Your task to perform on an android device: When is my next meeting? Image 0: 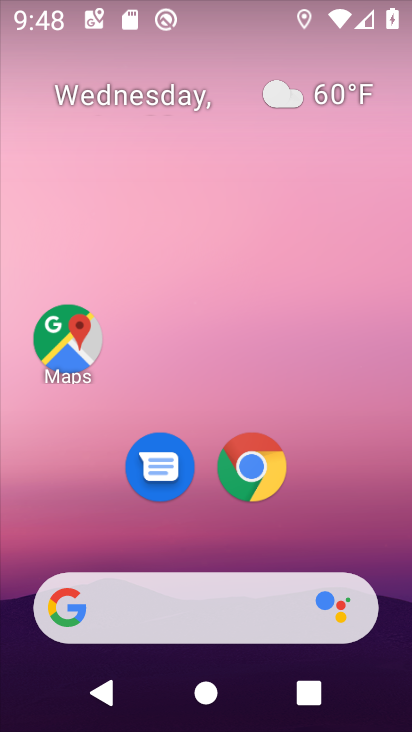
Step 0: drag from (339, 544) to (245, 76)
Your task to perform on an android device: When is my next meeting? Image 1: 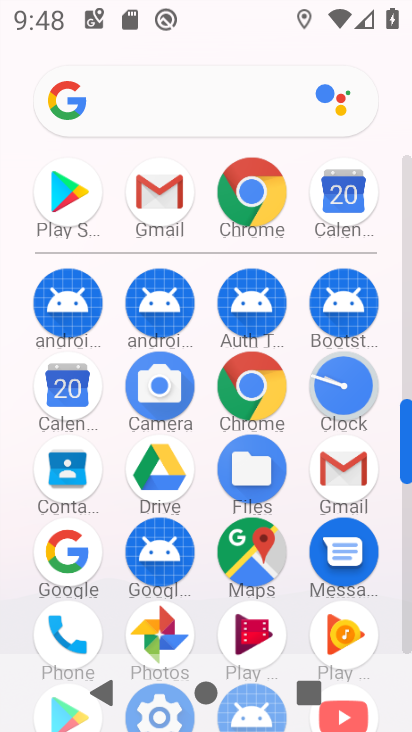
Step 1: click (53, 398)
Your task to perform on an android device: When is my next meeting? Image 2: 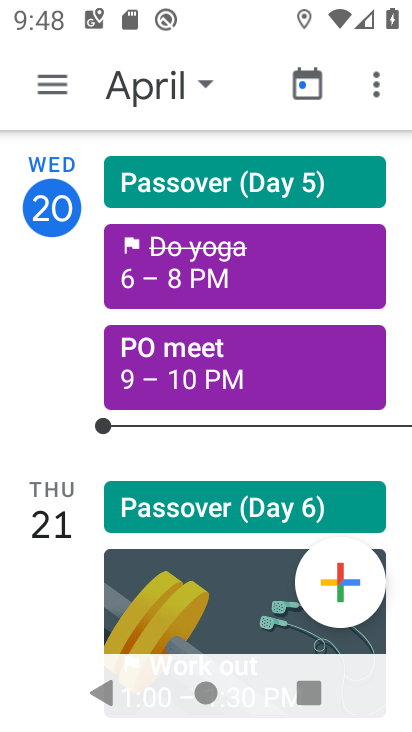
Step 2: click (172, 98)
Your task to perform on an android device: When is my next meeting? Image 3: 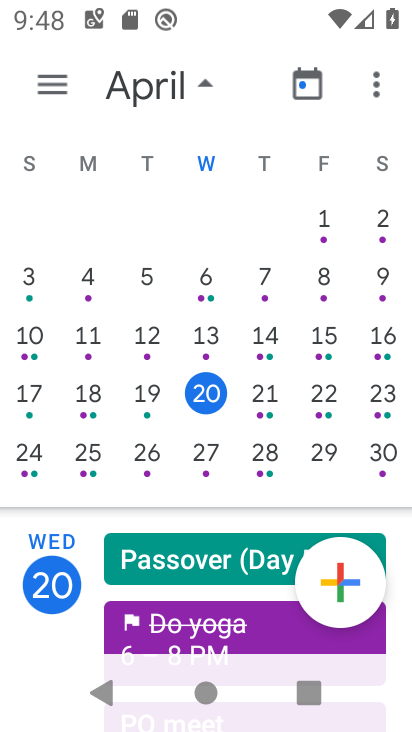
Step 3: click (266, 401)
Your task to perform on an android device: When is my next meeting? Image 4: 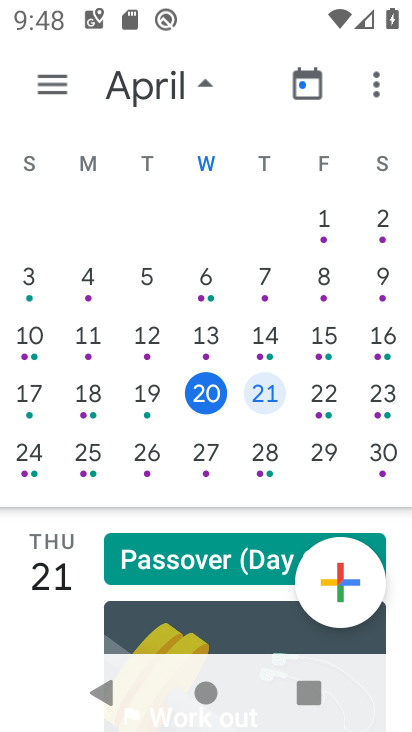
Step 4: task complete